Your task to perform on an android device: Clear the cart on target. Image 0: 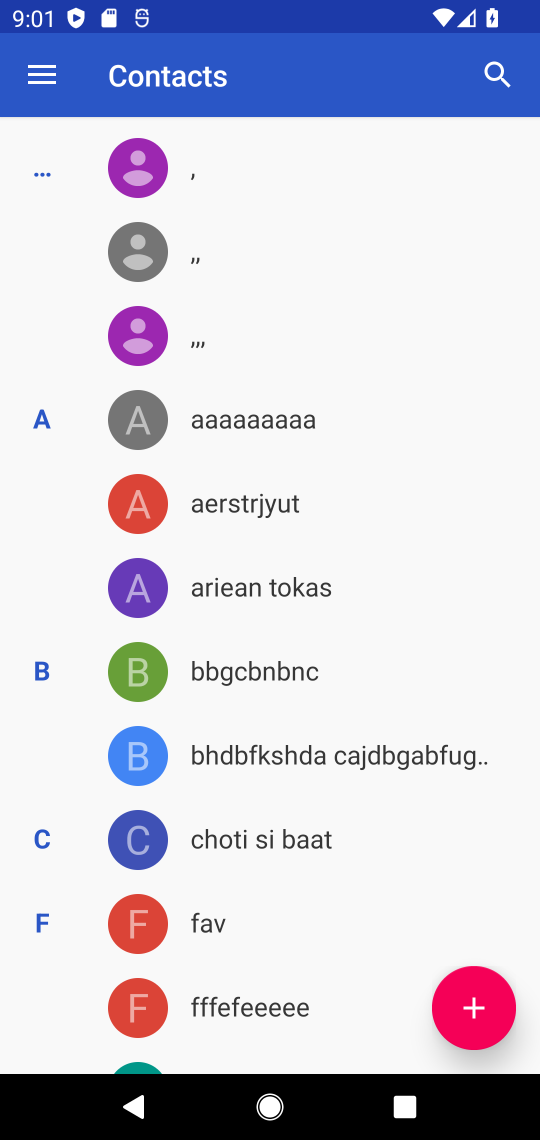
Step 0: press home button
Your task to perform on an android device: Clear the cart on target. Image 1: 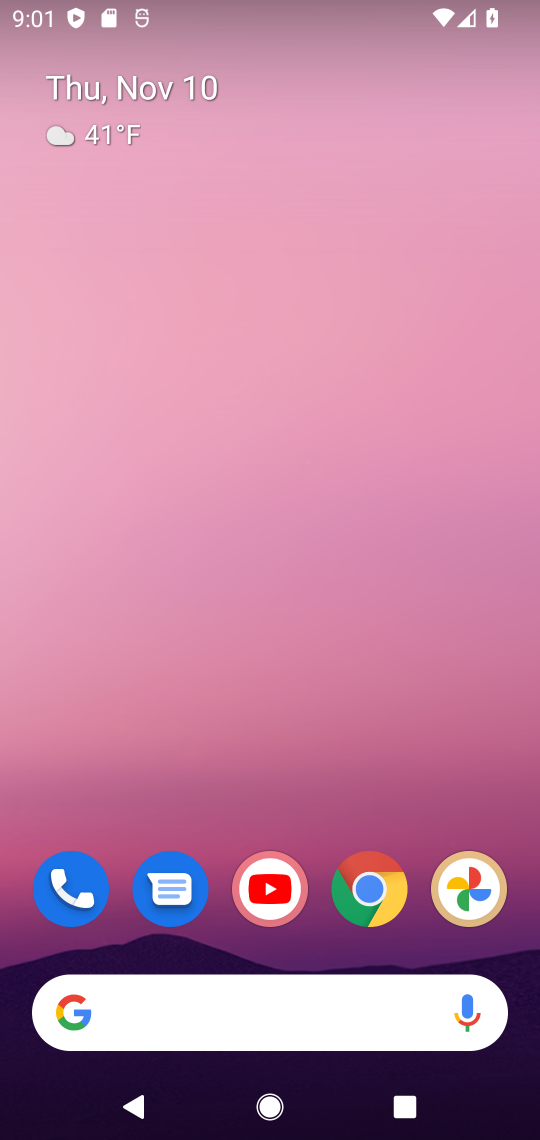
Step 1: click (364, 903)
Your task to perform on an android device: Clear the cart on target. Image 2: 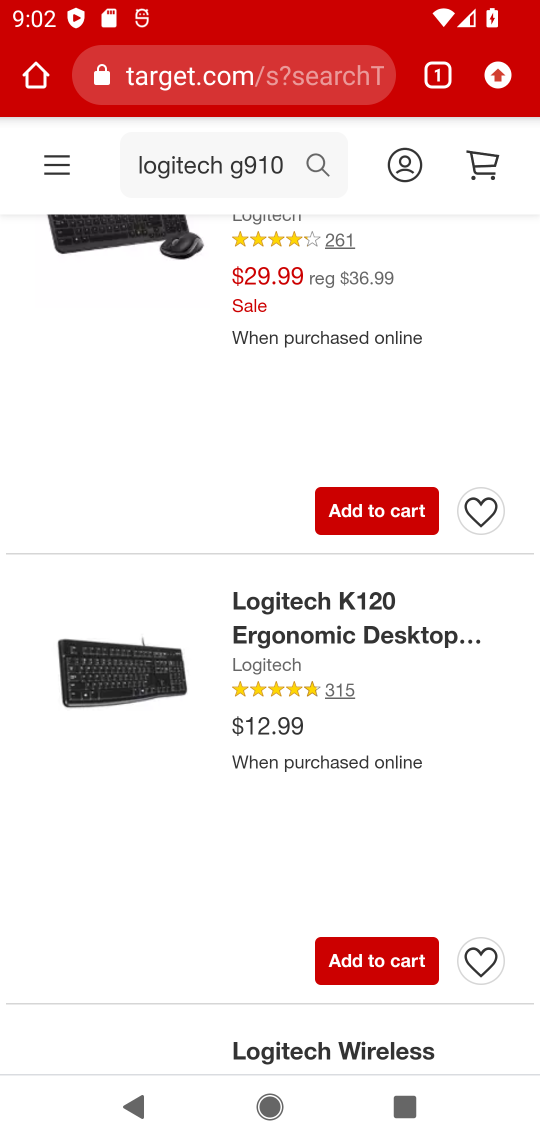
Step 2: drag from (421, 258) to (459, 960)
Your task to perform on an android device: Clear the cart on target. Image 3: 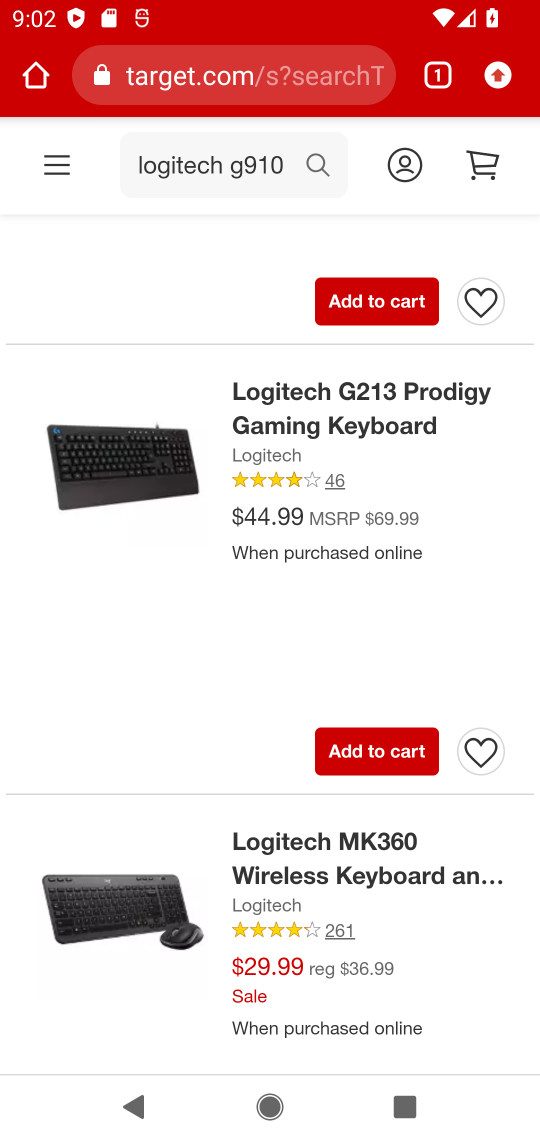
Step 3: click (480, 149)
Your task to perform on an android device: Clear the cart on target. Image 4: 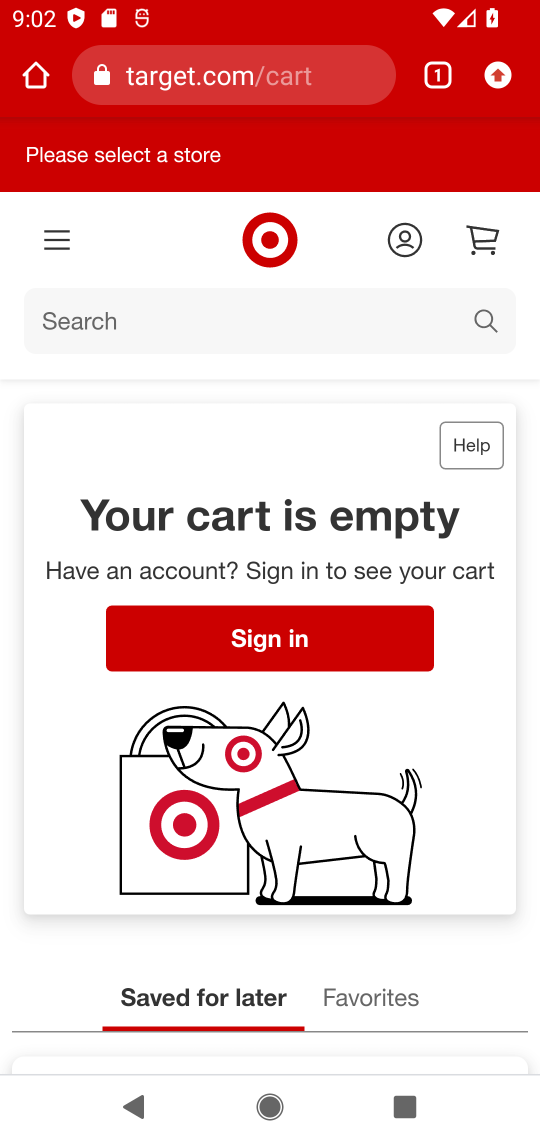
Step 4: task complete